Your task to perform on an android device: Open notification settings Image 0: 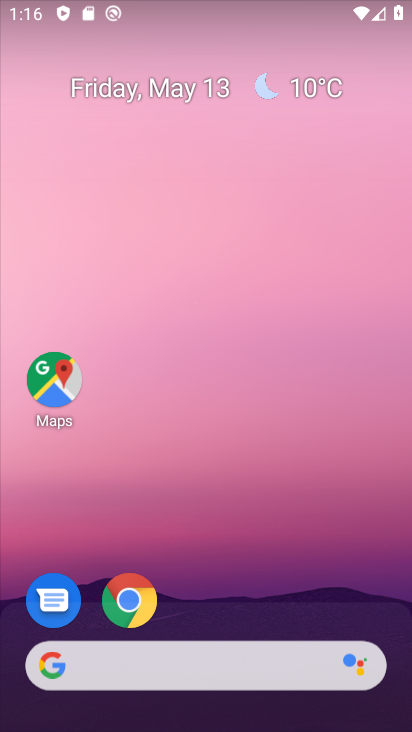
Step 0: drag from (251, 547) to (365, 178)
Your task to perform on an android device: Open notification settings Image 1: 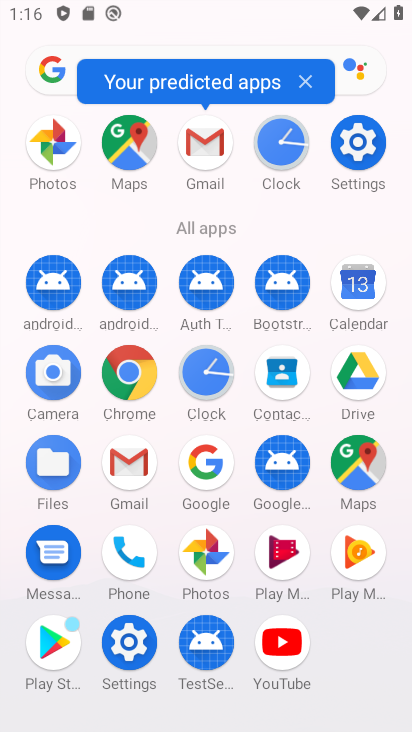
Step 1: click (125, 641)
Your task to perform on an android device: Open notification settings Image 2: 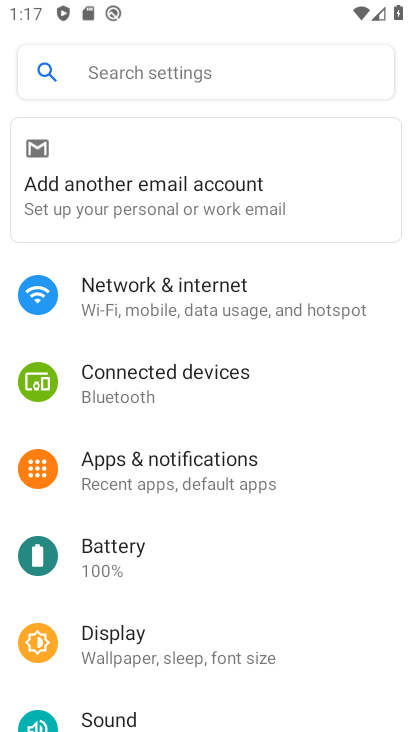
Step 2: click (252, 473)
Your task to perform on an android device: Open notification settings Image 3: 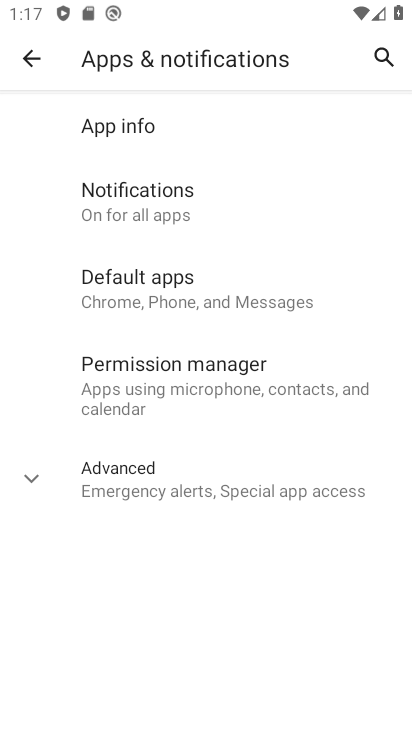
Step 3: click (165, 203)
Your task to perform on an android device: Open notification settings Image 4: 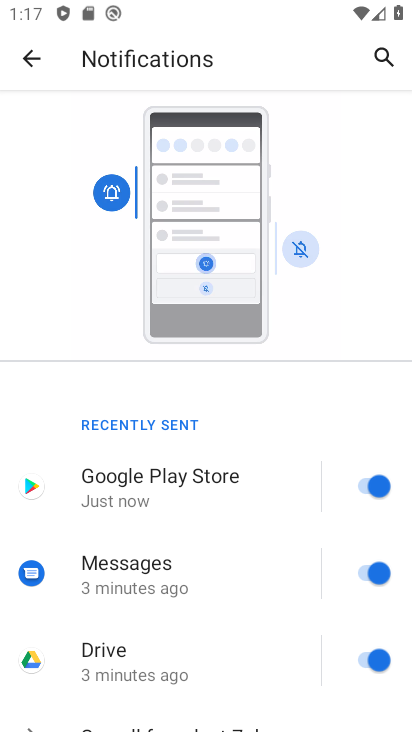
Step 4: task complete